Your task to perform on an android device: change timer sound Image 0: 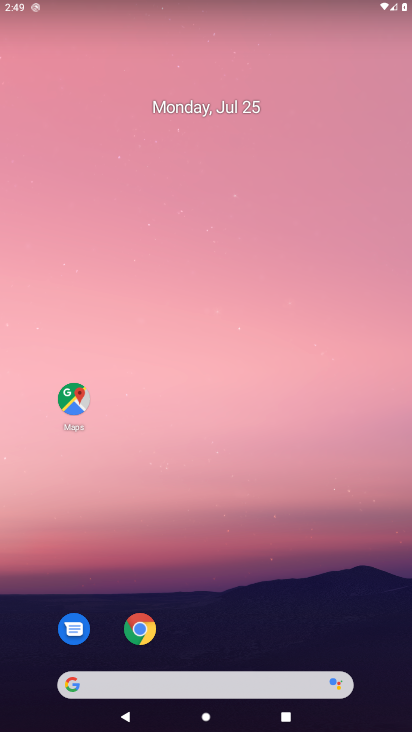
Step 0: drag from (40, 679) to (201, 239)
Your task to perform on an android device: change timer sound Image 1: 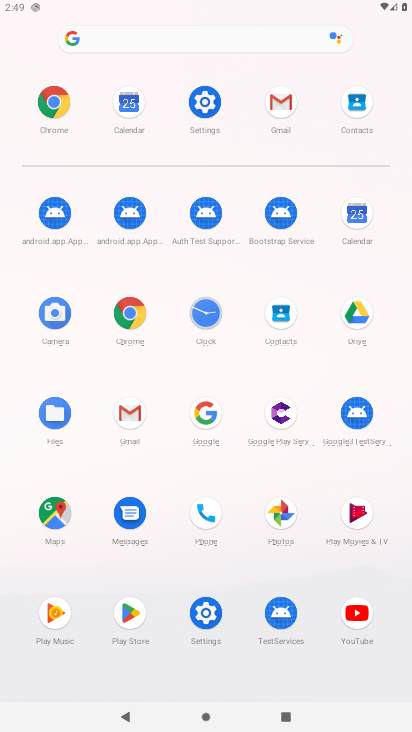
Step 1: click (202, 622)
Your task to perform on an android device: change timer sound Image 2: 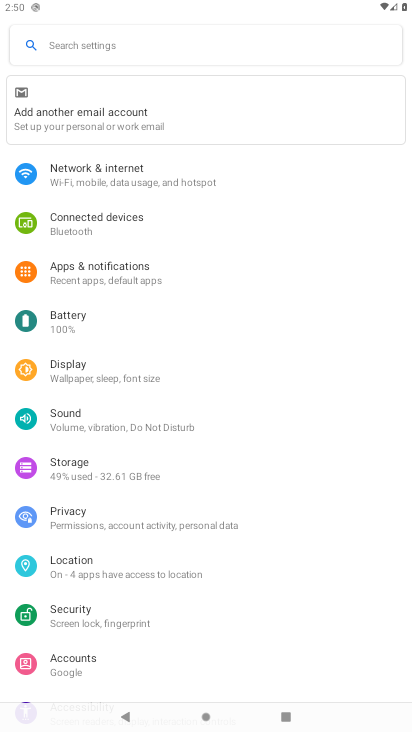
Step 2: click (91, 418)
Your task to perform on an android device: change timer sound Image 3: 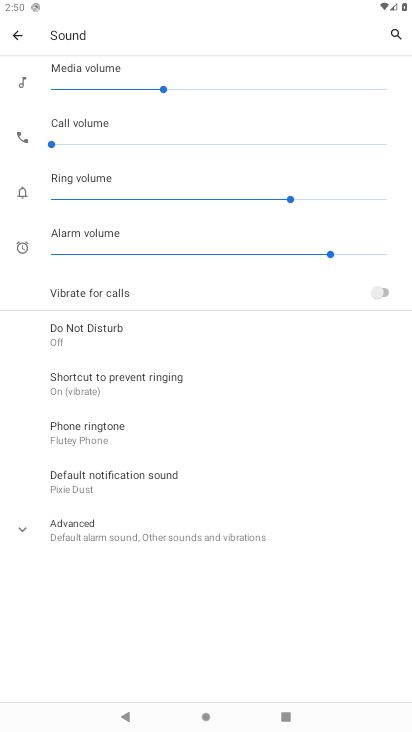
Step 3: task complete